Your task to perform on an android device: Go to sound settings Image 0: 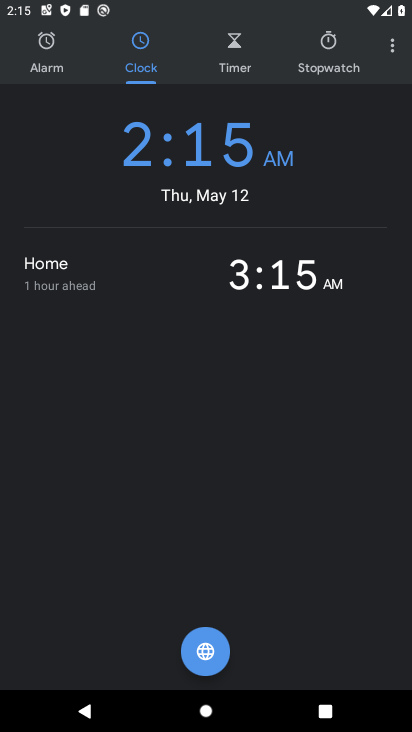
Step 0: press home button
Your task to perform on an android device: Go to sound settings Image 1: 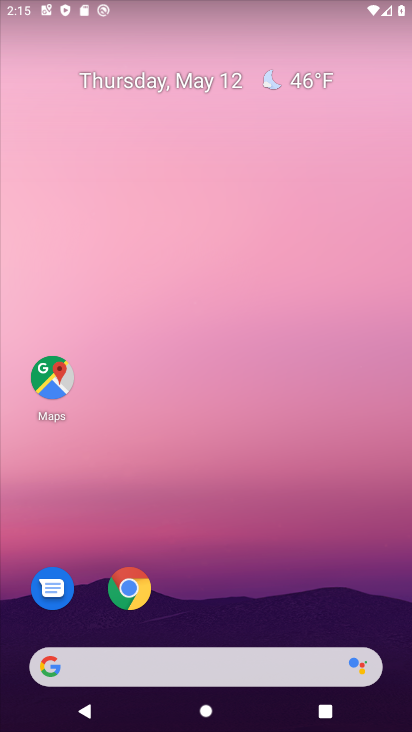
Step 1: drag from (365, 645) to (333, 62)
Your task to perform on an android device: Go to sound settings Image 2: 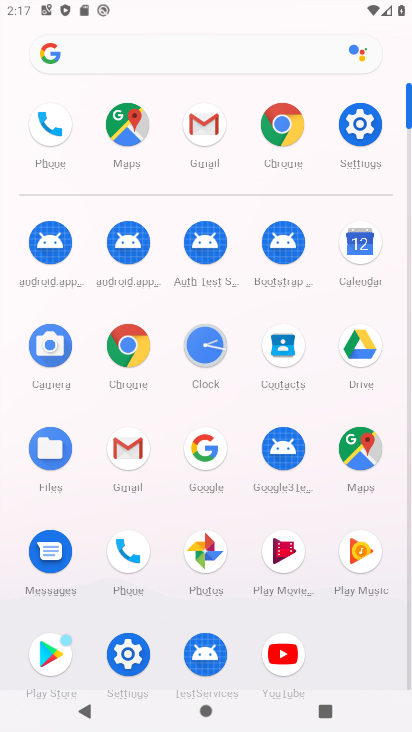
Step 2: click (130, 658)
Your task to perform on an android device: Go to sound settings Image 3: 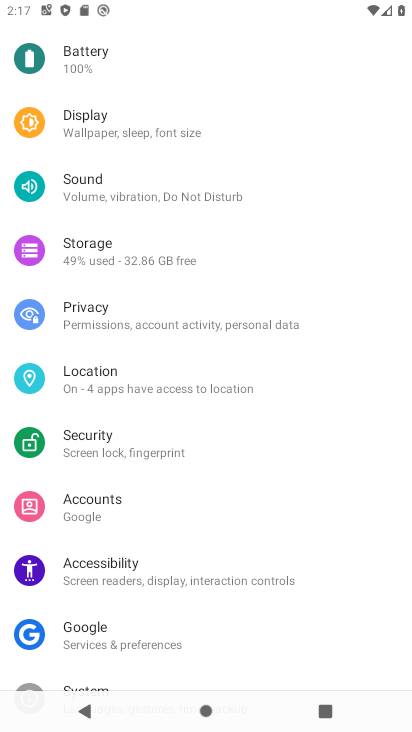
Step 3: click (107, 206)
Your task to perform on an android device: Go to sound settings Image 4: 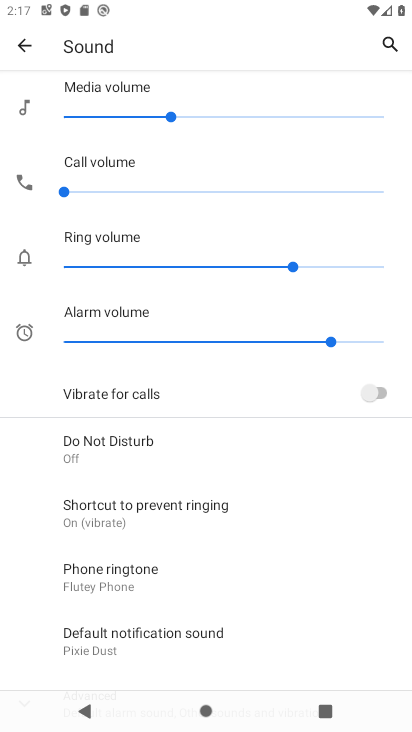
Step 4: task complete